Your task to perform on an android device: delete the emails in spam in the gmail app Image 0: 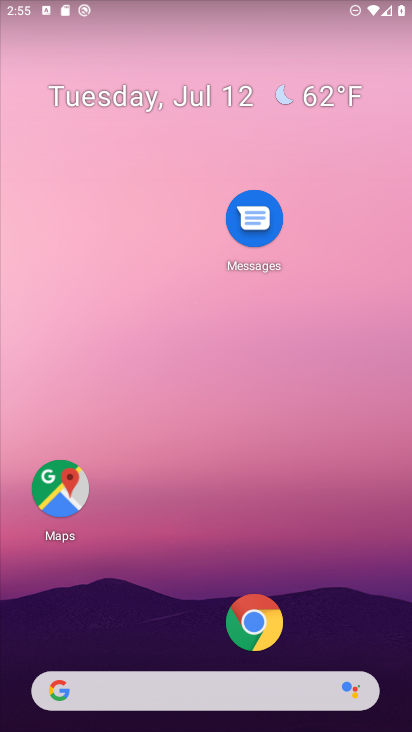
Step 0: press home button
Your task to perform on an android device: delete the emails in spam in the gmail app Image 1: 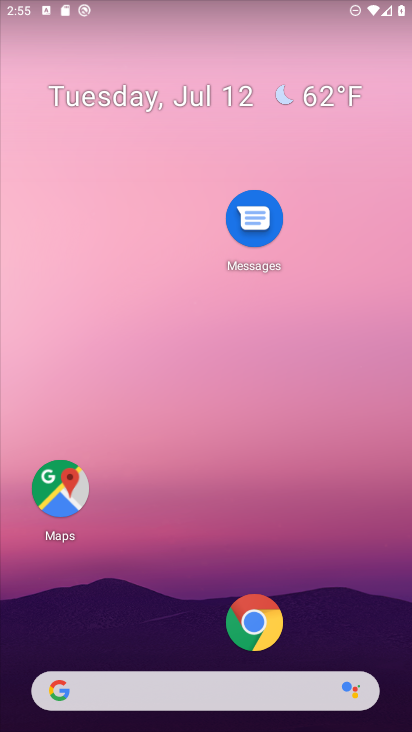
Step 1: drag from (189, 613) to (208, 79)
Your task to perform on an android device: delete the emails in spam in the gmail app Image 2: 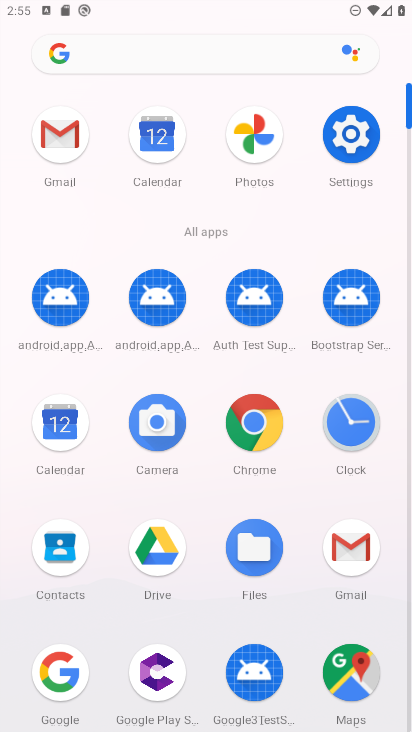
Step 2: click (59, 124)
Your task to perform on an android device: delete the emails in spam in the gmail app Image 3: 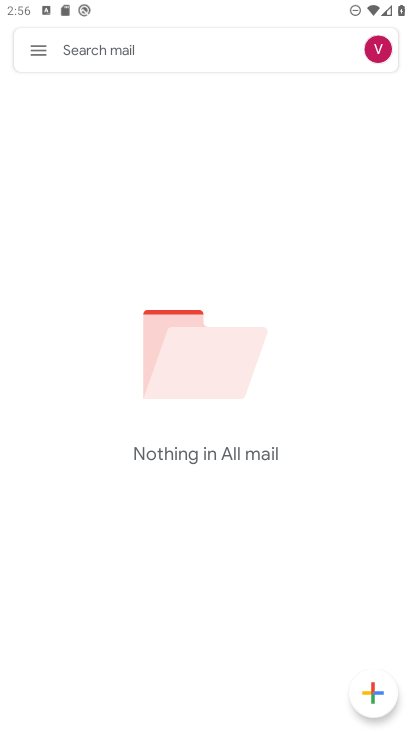
Step 3: click (33, 47)
Your task to perform on an android device: delete the emails in spam in the gmail app Image 4: 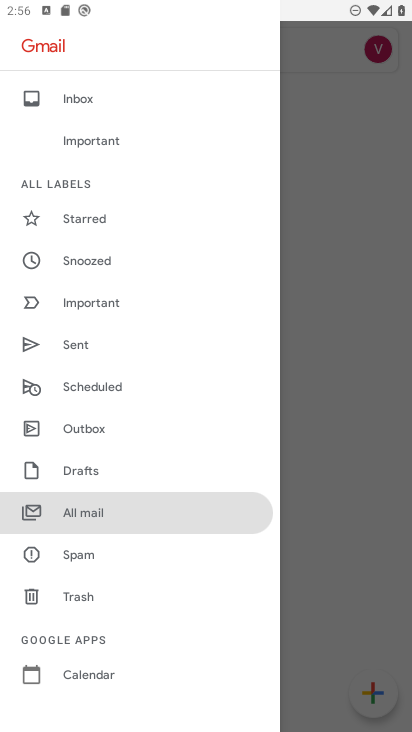
Step 4: click (83, 551)
Your task to perform on an android device: delete the emails in spam in the gmail app Image 5: 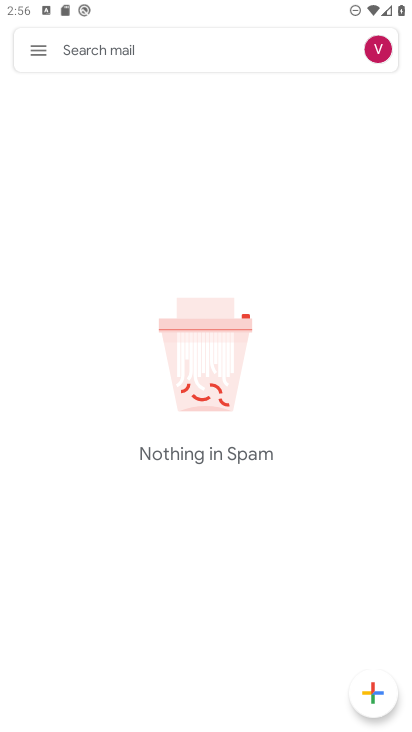
Step 5: task complete